Your task to perform on an android device: turn pop-ups off in chrome Image 0: 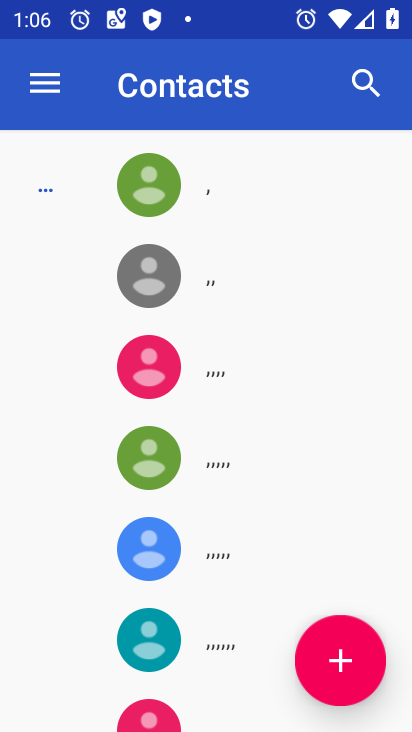
Step 0: press back button
Your task to perform on an android device: turn pop-ups off in chrome Image 1: 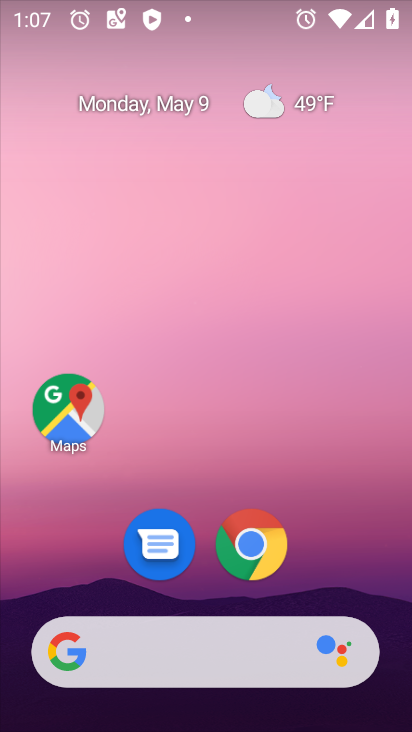
Step 1: click (257, 579)
Your task to perform on an android device: turn pop-ups off in chrome Image 2: 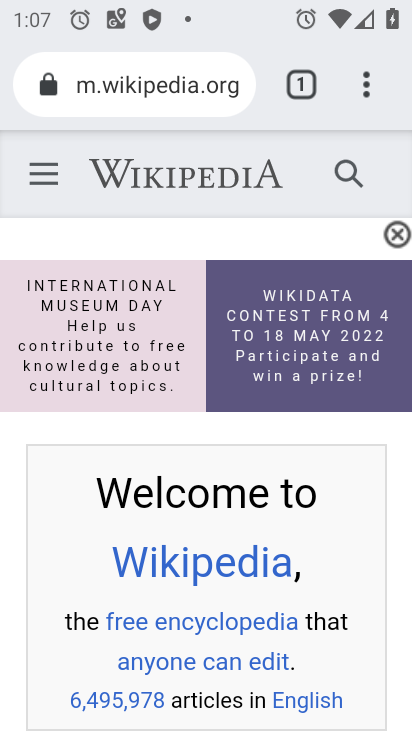
Step 2: click (364, 93)
Your task to perform on an android device: turn pop-ups off in chrome Image 3: 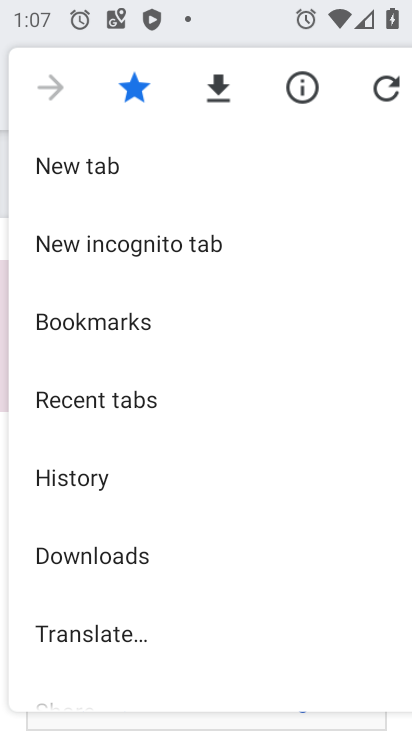
Step 3: drag from (134, 601) to (251, 36)
Your task to perform on an android device: turn pop-ups off in chrome Image 4: 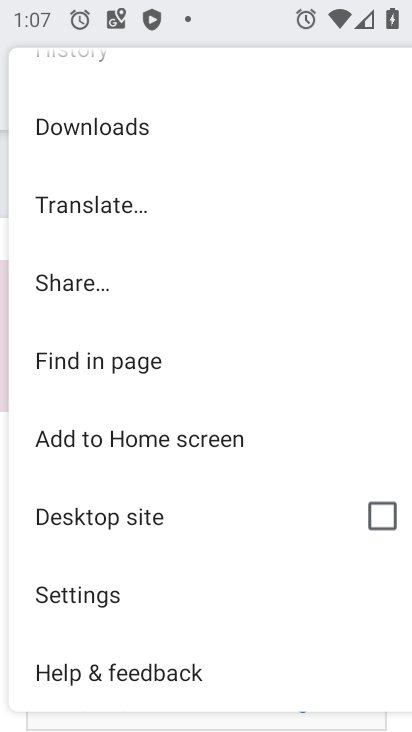
Step 4: click (89, 594)
Your task to perform on an android device: turn pop-ups off in chrome Image 5: 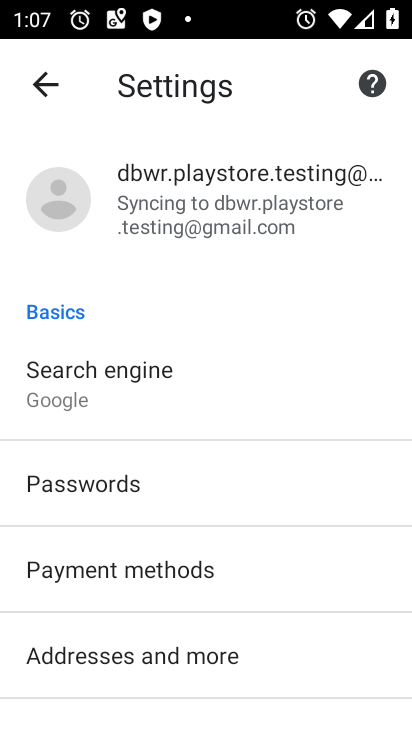
Step 5: drag from (225, 605) to (201, 126)
Your task to perform on an android device: turn pop-ups off in chrome Image 6: 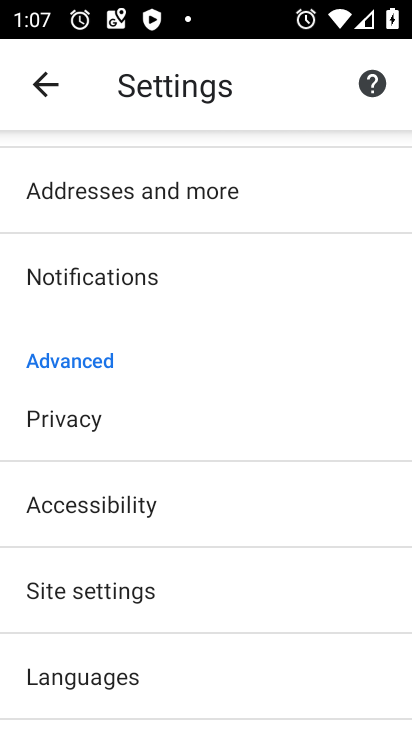
Step 6: click (107, 595)
Your task to perform on an android device: turn pop-ups off in chrome Image 7: 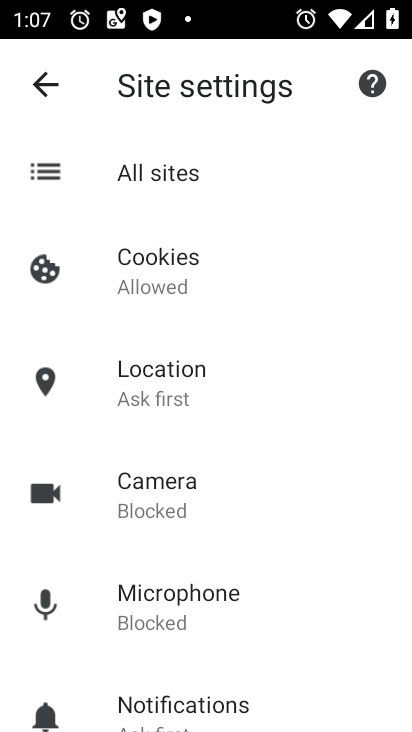
Step 7: drag from (221, 598) to (174, 82)
Your task to perform on an android device: turn pop-ups off in chrome Image 8: 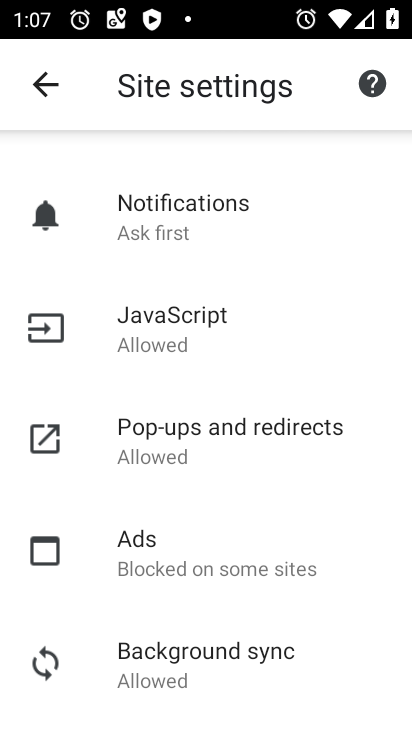
Step 8: click (188, 470)
Your task to perform on an android device: turn pop-ups off in chrome Image 9: 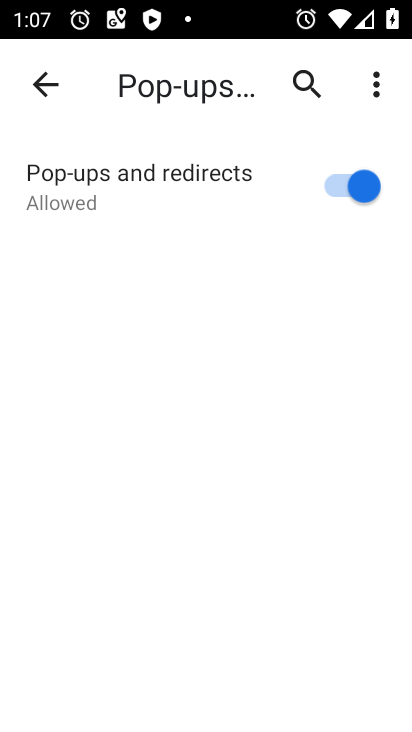
Step 9: click (340, 181)
Your task to perform on an android device: turn pop-ups off in chrome Image 10: 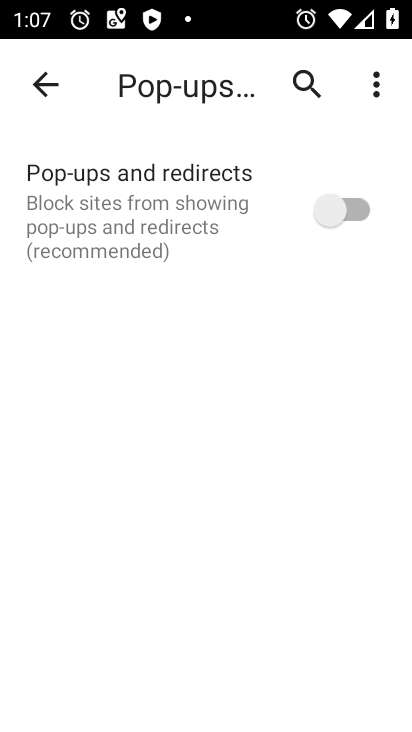
Step 10: task complete